Your task to perform on an android device: toggle priority inbox in the gmail app Image 0: 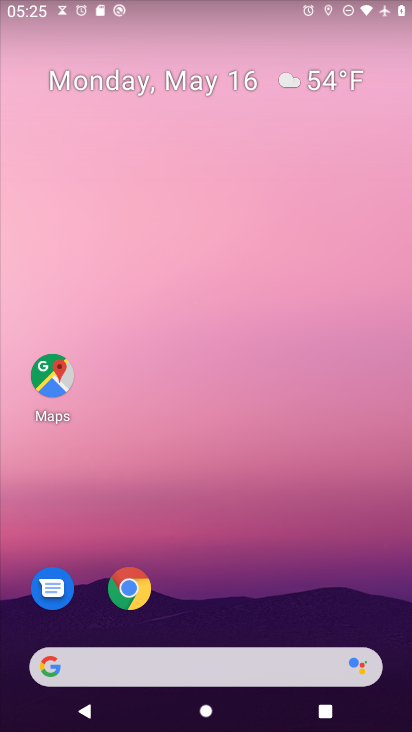
Step 0: drag from (265, 556) to (223, 45)
Your task to perform on an android device: toggle priority inbox in the gmail app Image 1: 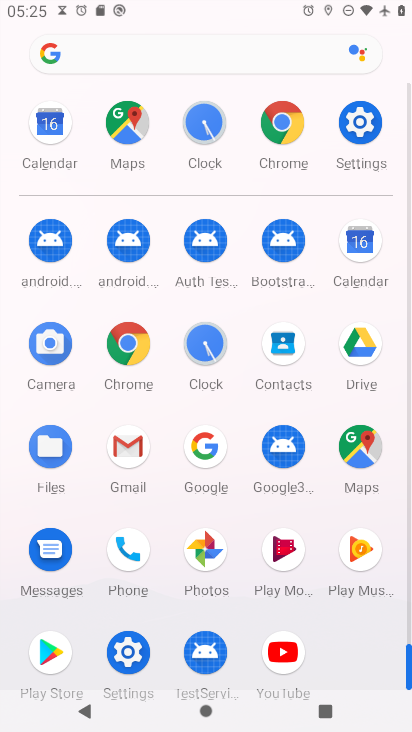
Step 1: drag from (4, 530) to (10, 156)
Your task to perform on an android device: toggle priority inbox in the gmail app Image 2: 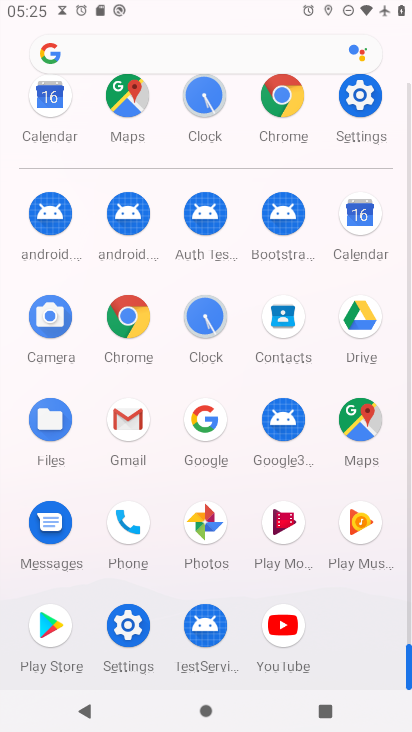
Step 2: drag from (9, 524) to (19, 314)
Your task to perform on an android device: toggle priority inbox in the gmail app Image 3: 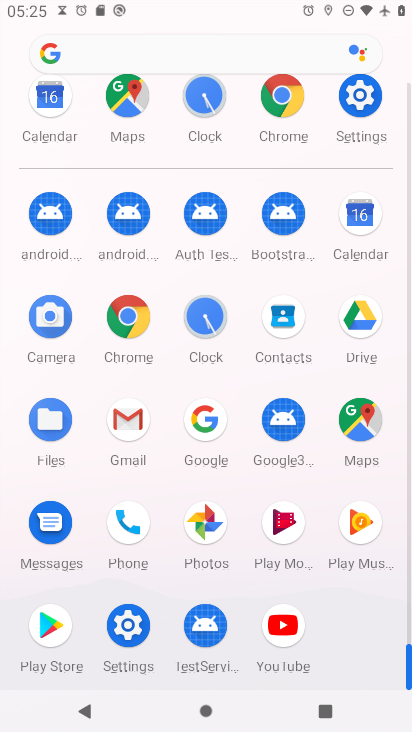
Step 3: drag from (23, 592) to (2, 340)
Your task to perform on an android device: toggle priority inbox in the gmail app Image 4: 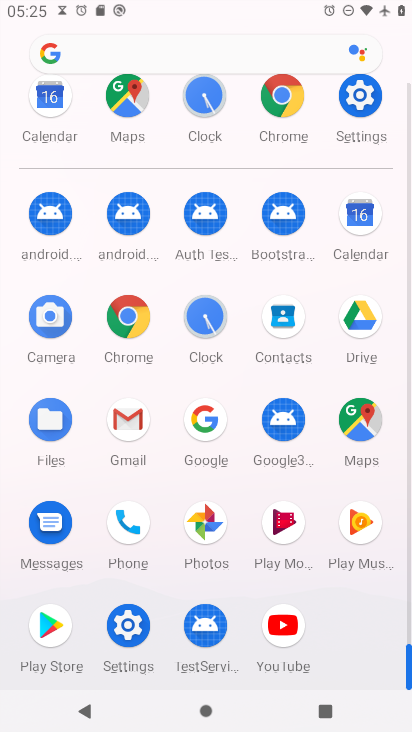
Step 4: drag from (7, 496) to (1, 303)
Your task to perform on an android device: toggle priority inbox in the gmail app Image 5: 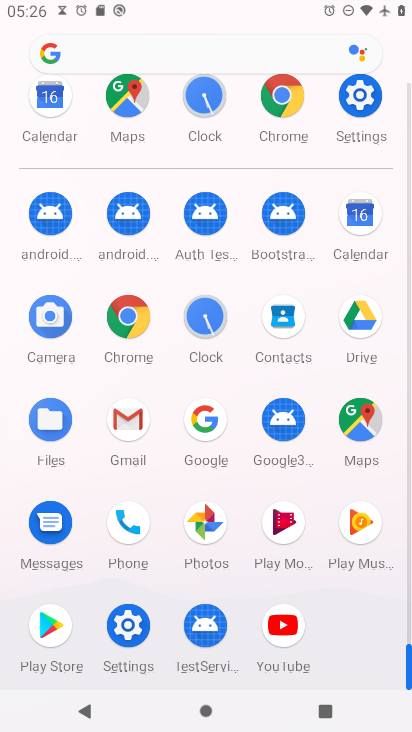
Step 5: drag from (18, 195) to (0, 374)
Your task to perform on an android device: toggle priority inbox in the gmail app Image 6: 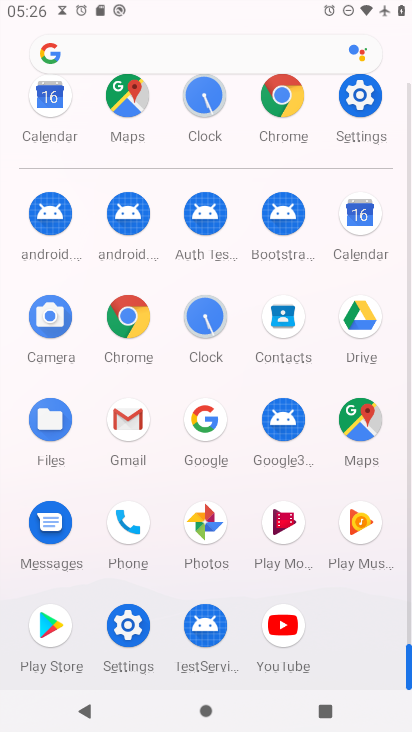
Step 6: click (127, 411)
Your task to perform on an android device: toggle priority inbox in the gmail app Image 7: 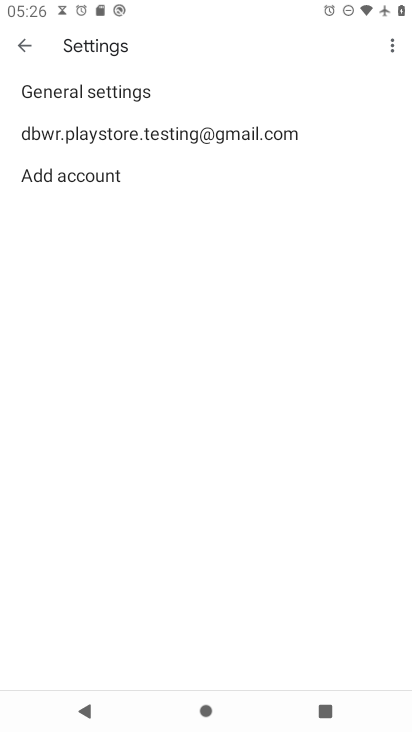
Step 7: click (131, 147)
Your task to perform on an android device: toggle priority inbox in the gmail app Image 8: 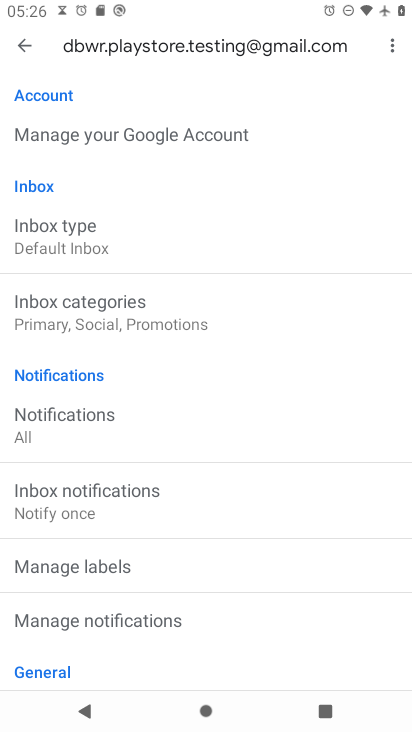
Step 8: click (121, 231)
Your task to perform on an android device: toggle priority inbox in the gmail app Image 9: 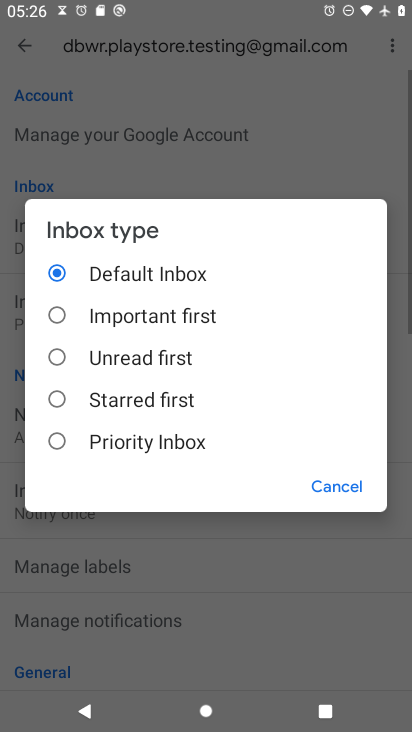
Step 9: click (110, 432)
Your task to perform on an android device: toggle priority inbox in the gmail app Image 10: 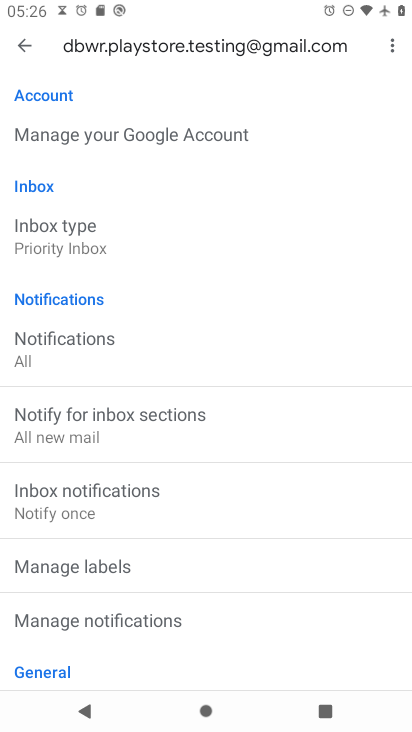
Step 10: task complete